Your task to perform on an android device: change timer sound Image 0: 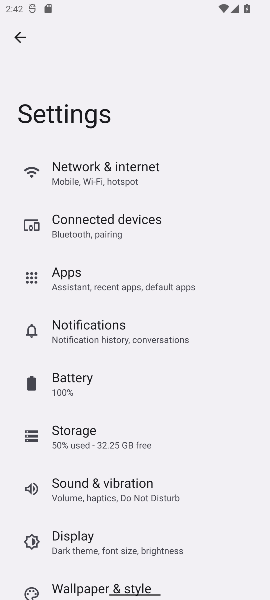
Step 0: click (126, 488)
Your task to perform on an android device: change timer sound Image 1: 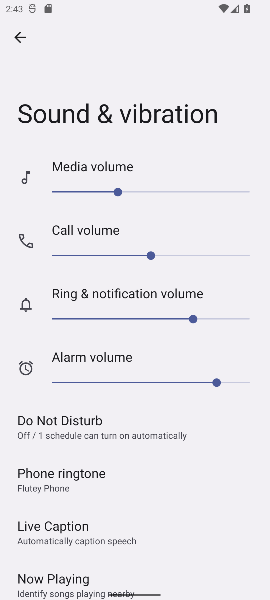
Step 1: task complete